Your task to perform on an android device: see creations saved in the google photos Image 0: 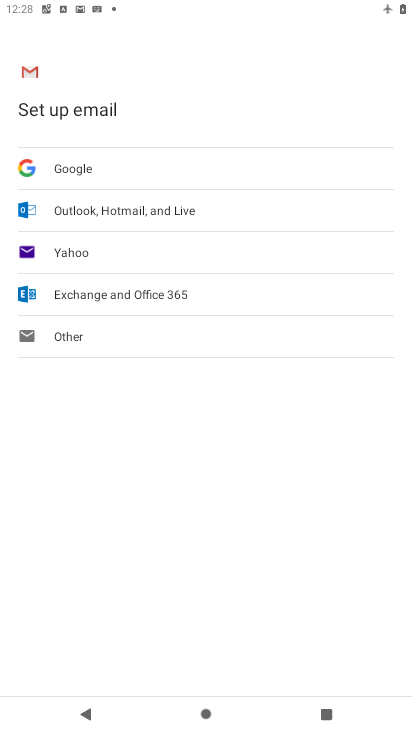
Step 0: press home button
Your task to perform on an android device: see creations saved in the google photos Image 1: 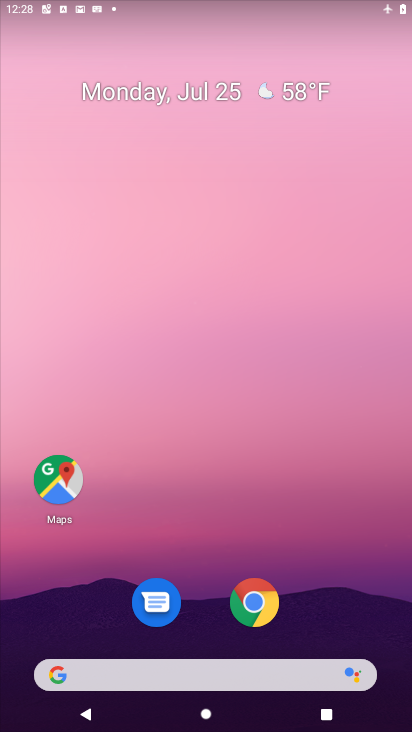
Step 1: drag from (211, 549) to (222, 11)
Your task to perform on an android device: see creations saved in the google photos Image 2: 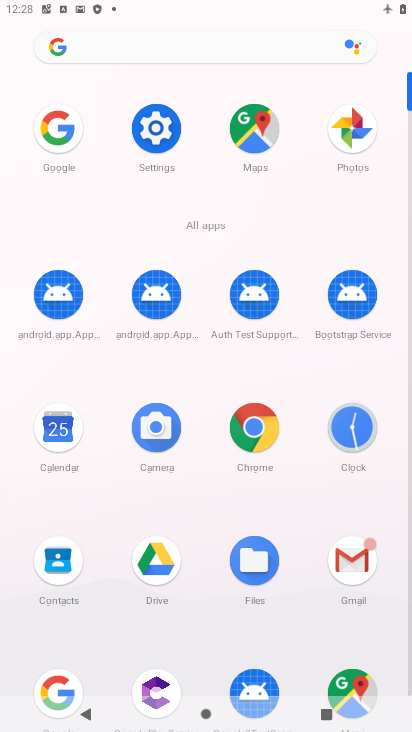
Step 2: click (346, 131)
Your task to perform on an android device: see creations saved in the google photos Image 3: 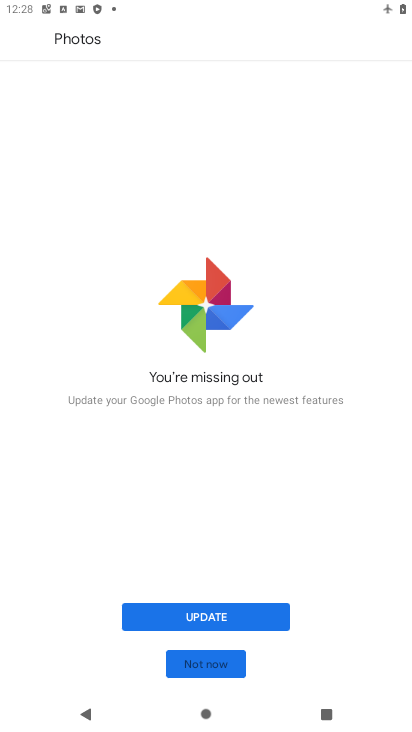
Step 3: click (207, 659)
Your task to perform on an android device: see creations saved in the google photos Image 4: 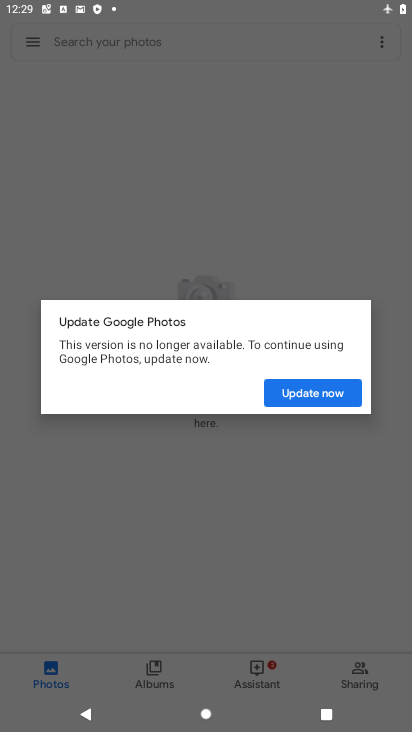
Step 4: click (243, 457)
Your task to perform on an android device: see creations saved in the google photos Image 5: 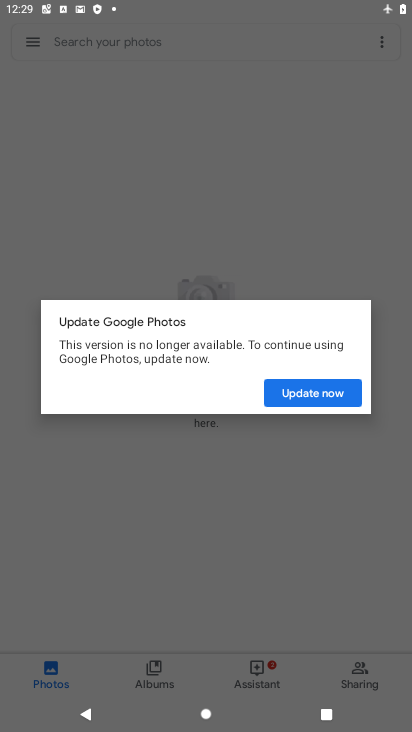
Step 5: click (318, 378)
Your task to perform on an android device: see creations saved in the google photos Image 6: 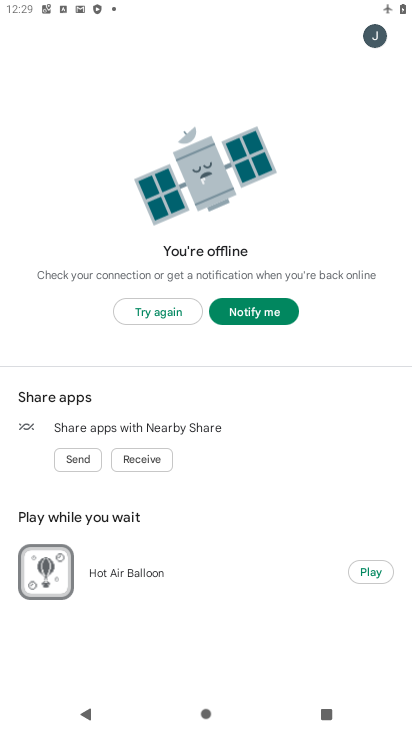
Step 6: press back button
Your task to perform on an android device: see creations saved in the google photos Image 7: 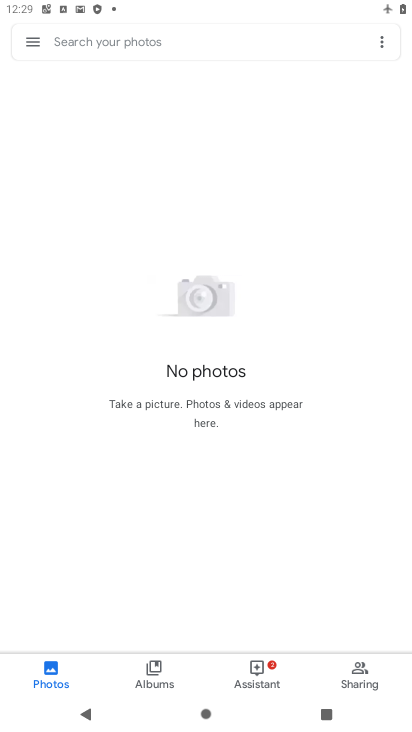
Step 7: click (185, 40)
Your task to perform on an android device: see creations saved in the google photos Image 8: 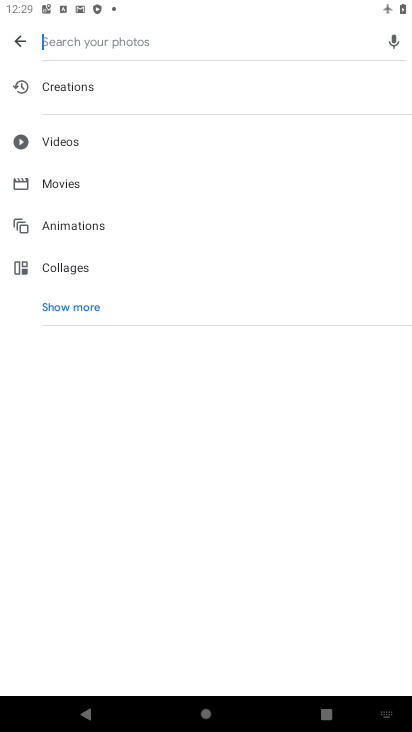
Step 8: click (96, 308)
Your task to perform on an android device: see creations saved in the google photos Image 9: 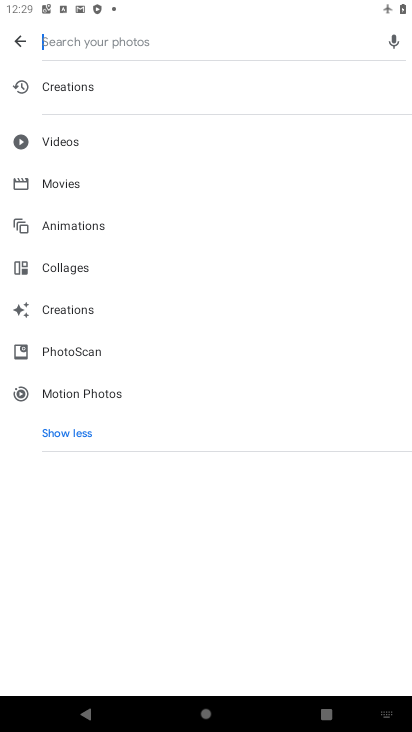
Step 9: click (99, 319)
Your task to perform on an android device: see creations saved in the google photos Image 10: 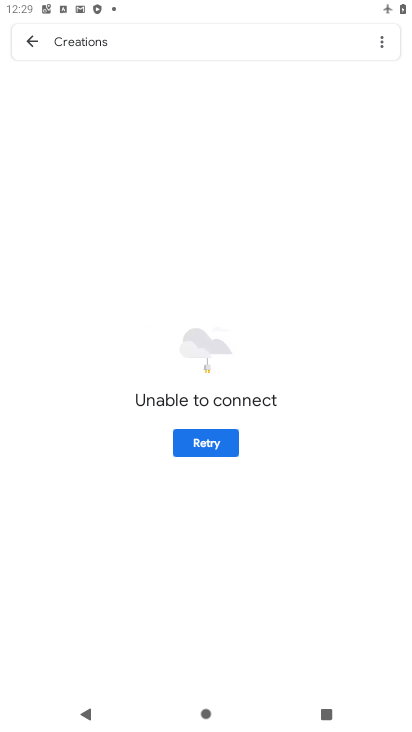
Step 10: task complete